Your task to perform on an android device: turn off priority inbox in the gmail app Image 0: 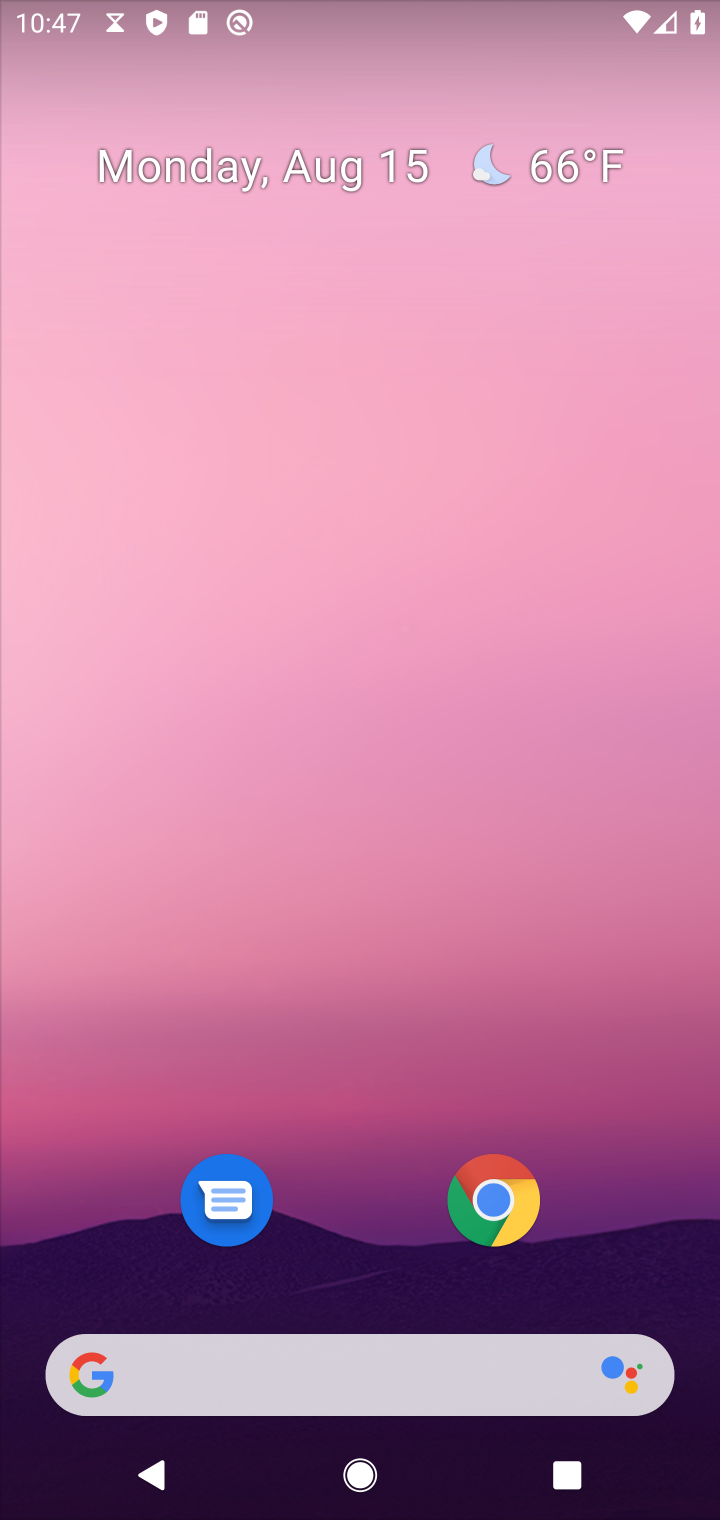
Step 0: drag from (388, 1061) to (385, 0)
Your task to perform on an android device: turn off priority inbox in the gmail app Image 1: 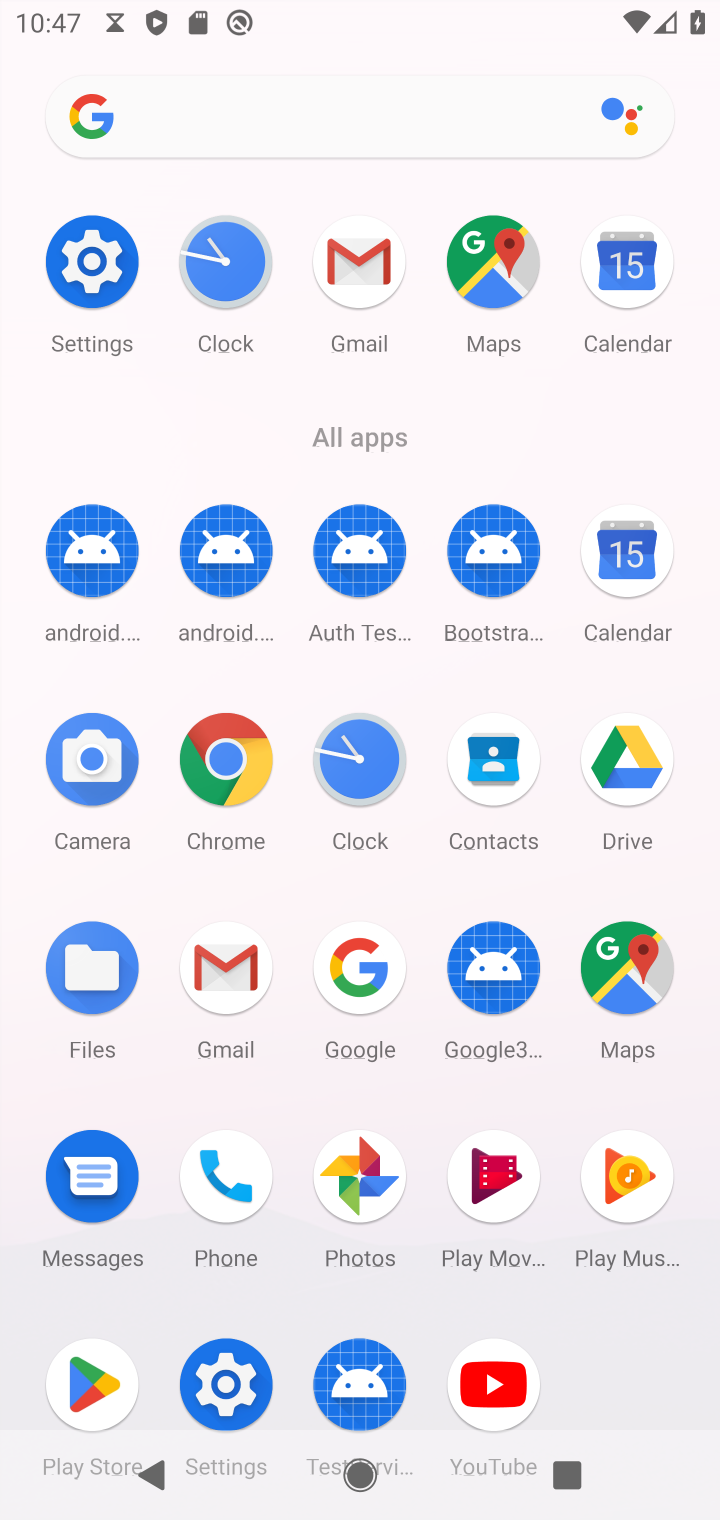
Step 1: click (223, 1014)
Your task to perform on an android device: turn off priority inbox in the gmail app Image 2: 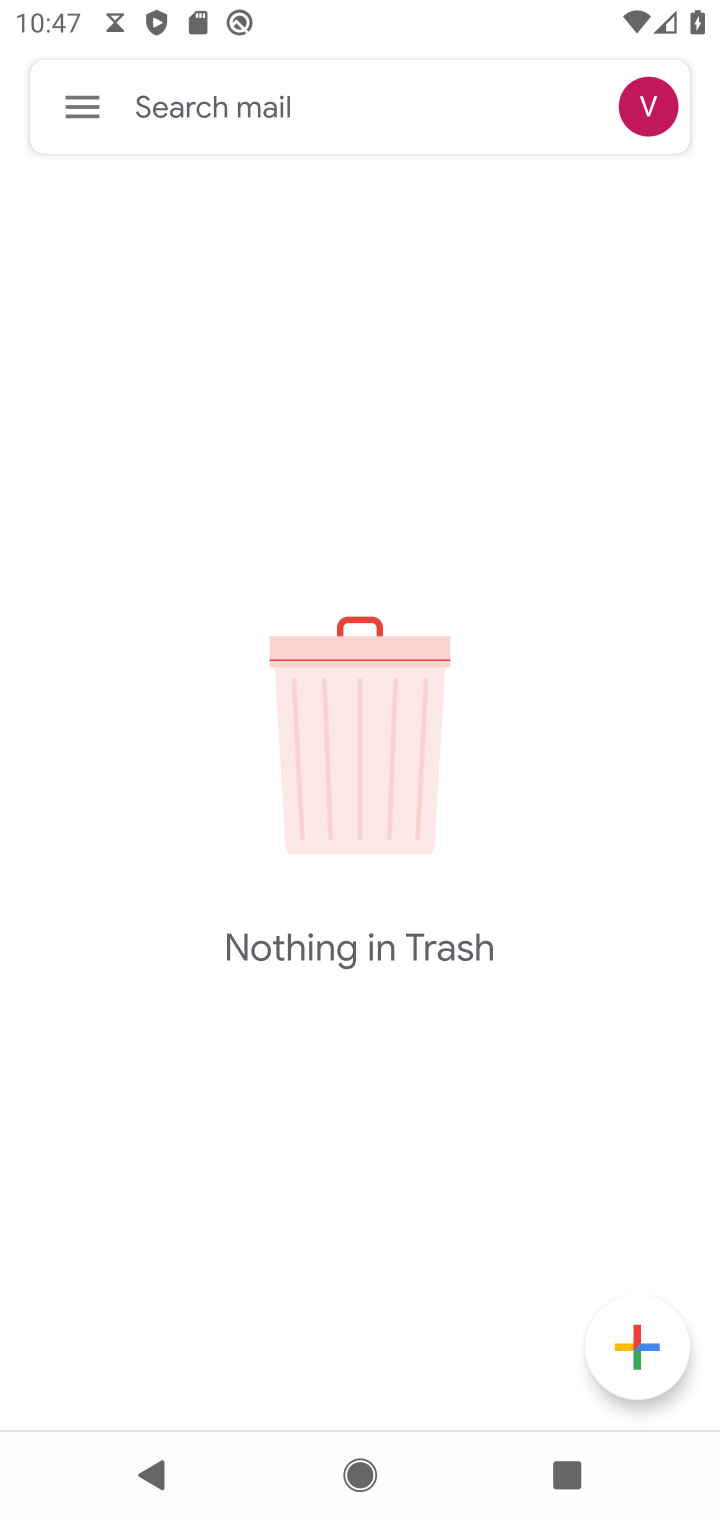
Step 2: click (83, 111)
Your task to perform on an android device: turn off priority inbox in the gmail app Image 3: 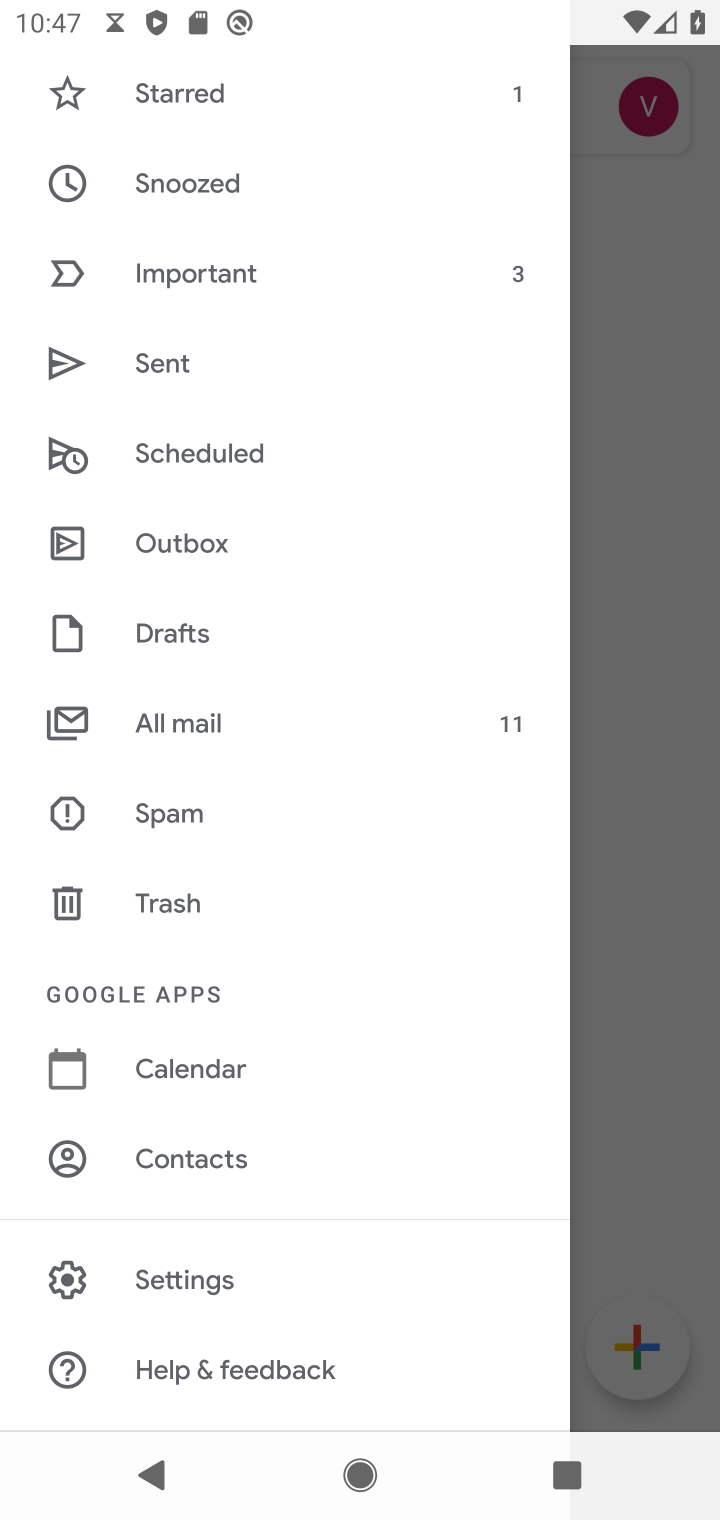
Step 3: click (206, 1285)
Your task to perform on an android device: turn off priority inbox in the gmail app Image 4: 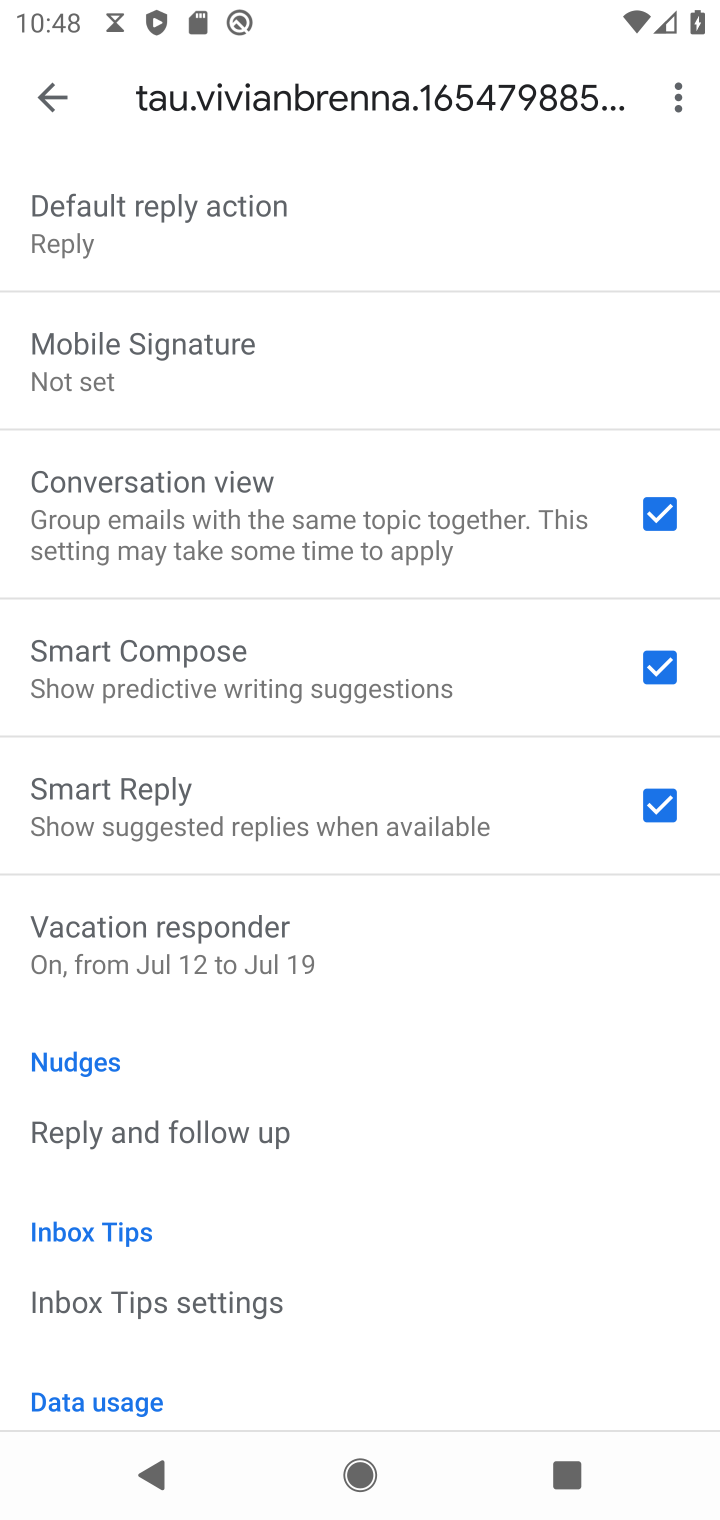
Step 4: drag from (388, 488) to (352, 1464)
Your task to perform on an android device: turn off priority inbox in the gmail app Image 5: 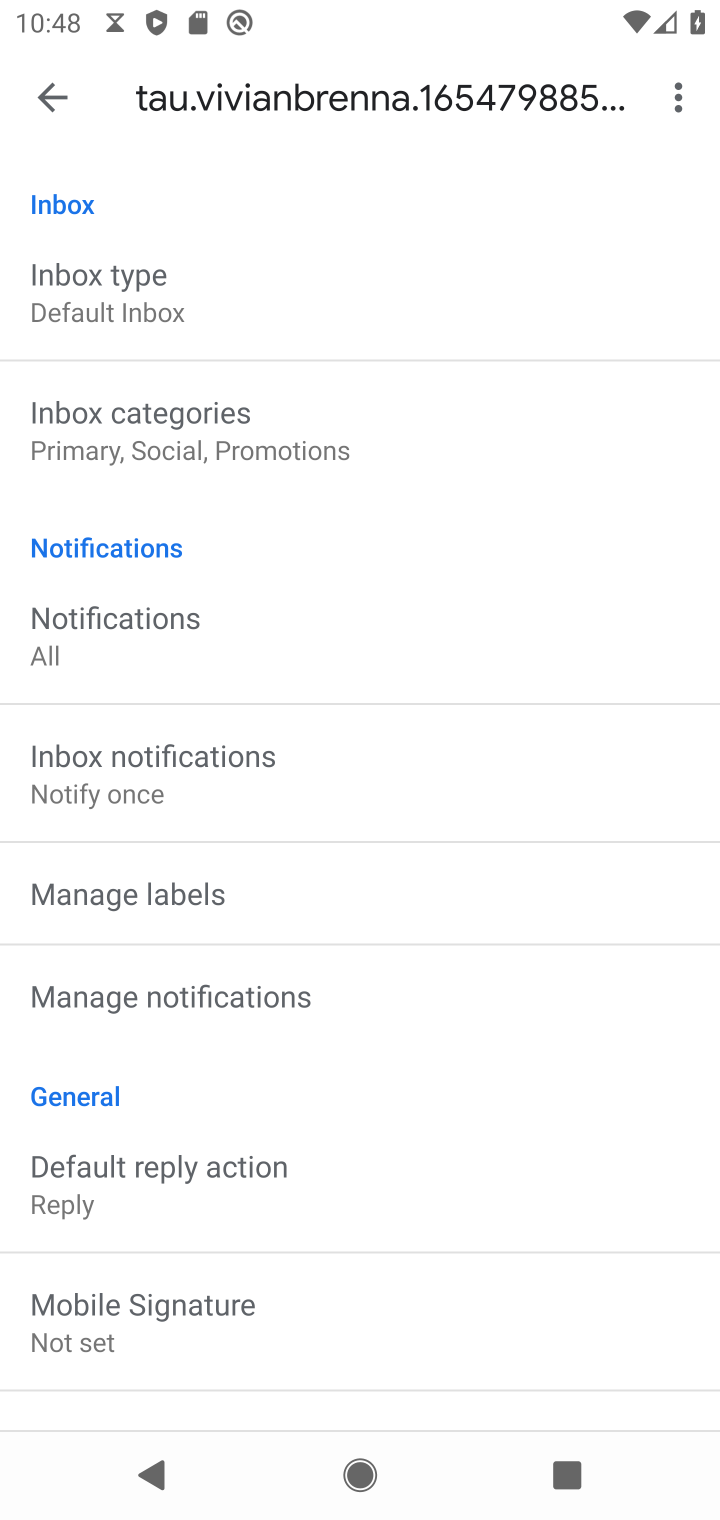
Step 5: click (169, 296)
Your task to perform on an android device: turn off priority inbox in the gmail app Image 6: 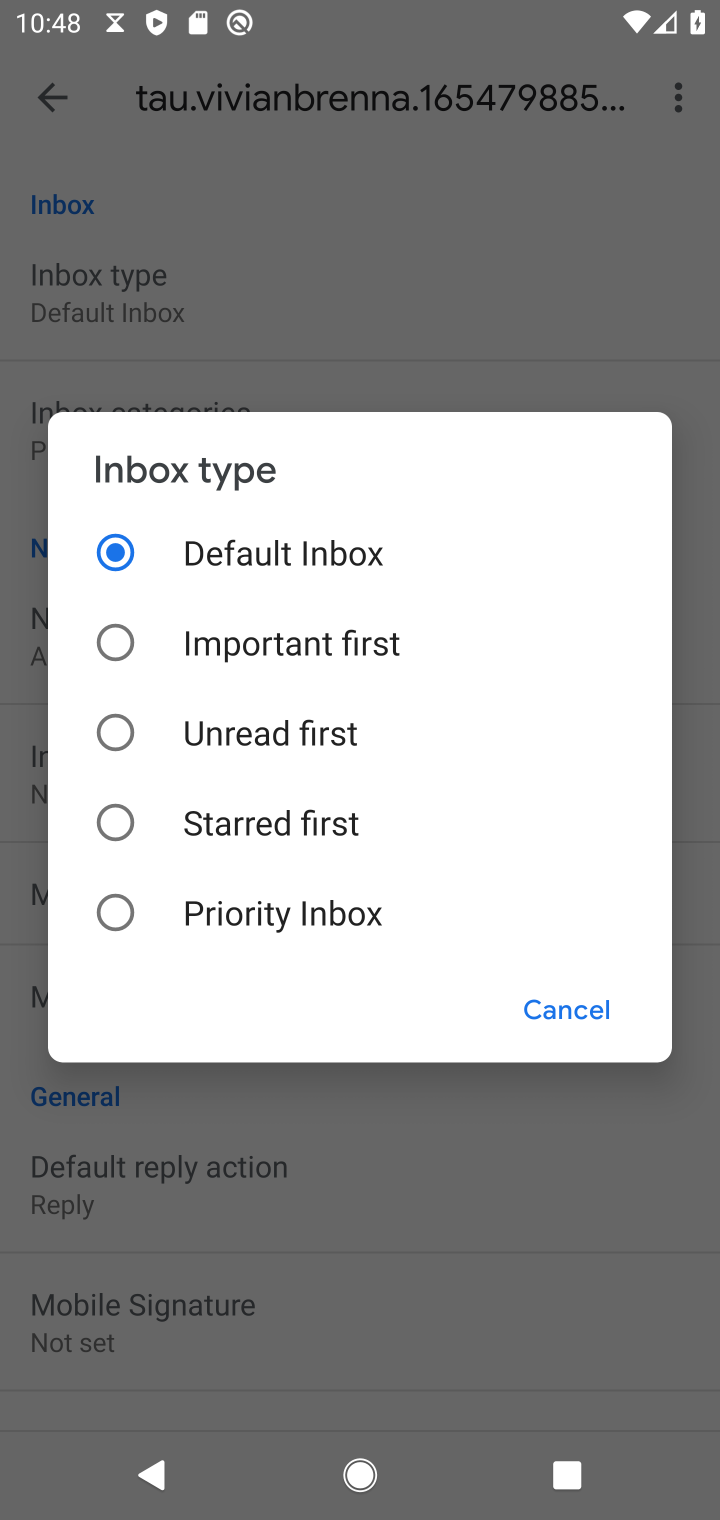
Step 6: click (250, 917)
Your task to perform on an android device: turn off priority inbox in the gmail app Image 7: 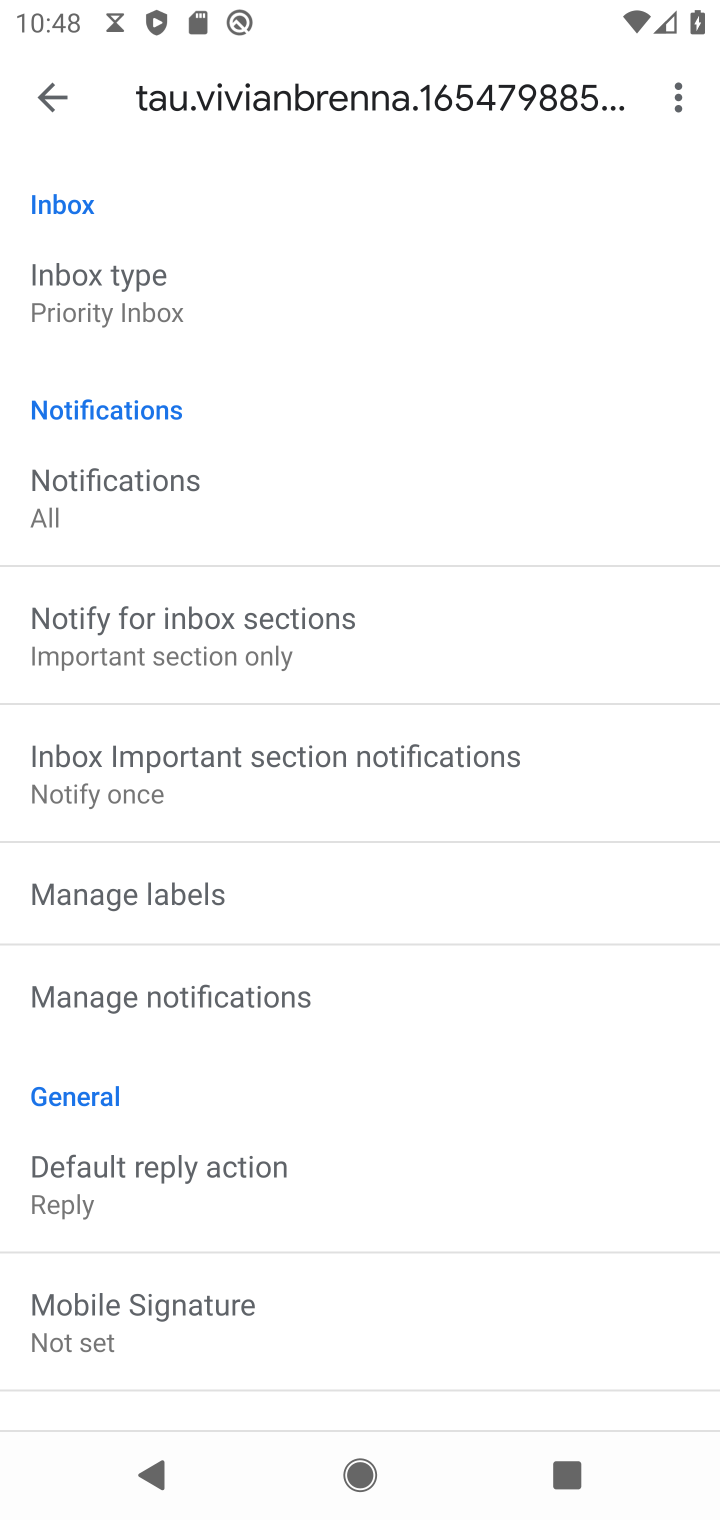
Step 7: task complete